Your task to perform on an android device: delete browsing data in the chrome app Image 0: 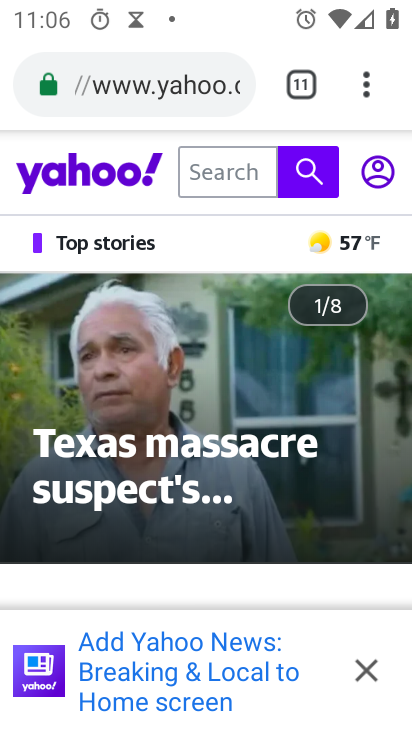
Step 0: press home button
Your task to perform on an android device: delete browsing data in the chrome app Image 1: 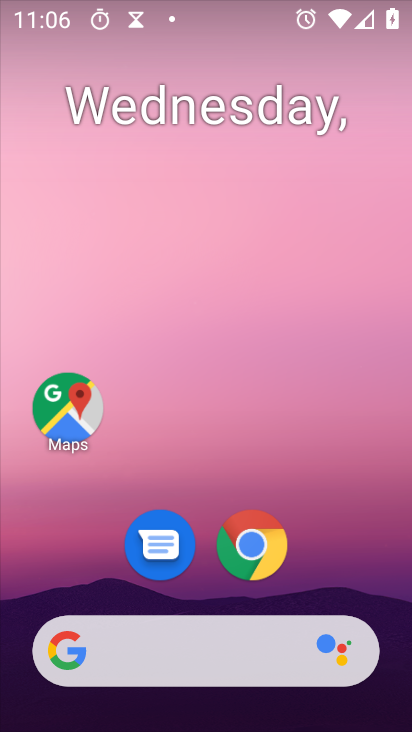
Step 1: click (243, 550)
Your task to perform on an android device: delete browsing data in the chrome app Image 2: 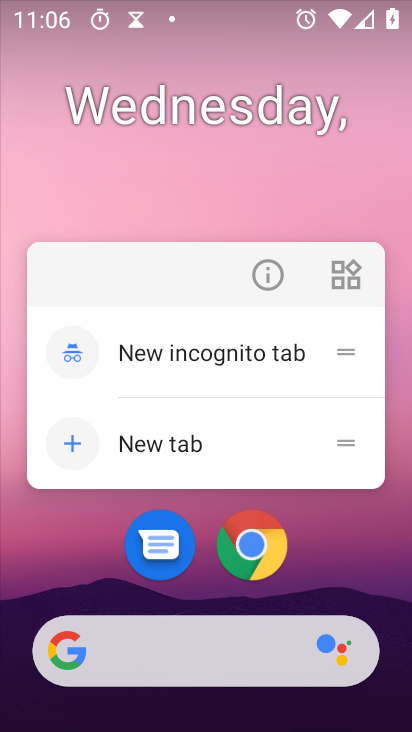
Step 2: click (245, 554)
Your task to perform on an android device: delete browsing data in the chrome app Image 3: 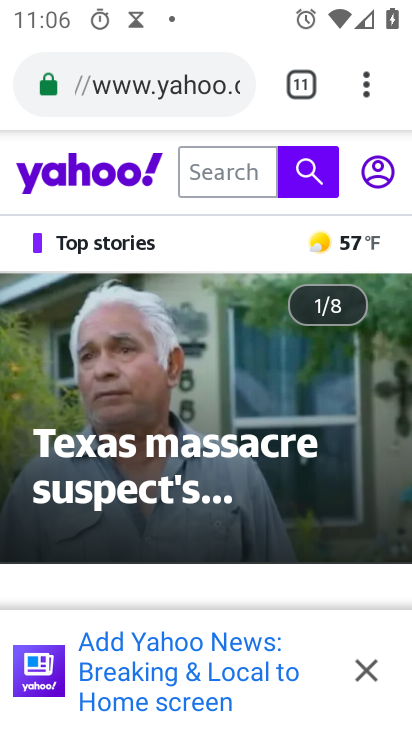
Step 3: drag from (362, 95) to (218, 603)
Your task to perform on an android device: delete browsing data in the chrome app Image 4: 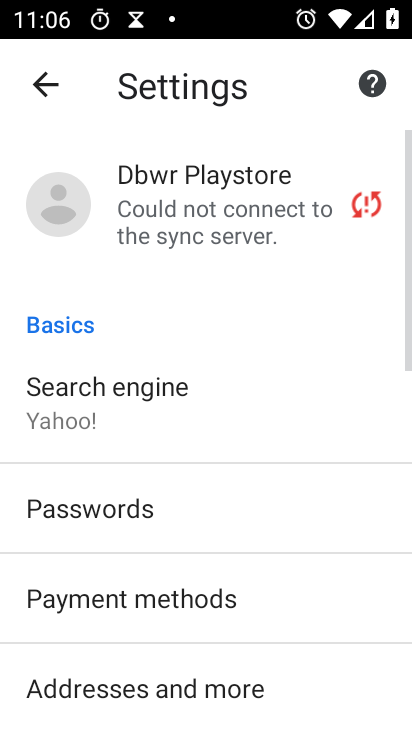
Step 4: drag from (228, 652) to (334, 116)
Your task to perform on an android device: delete browsing data in the chrome app Image 5: 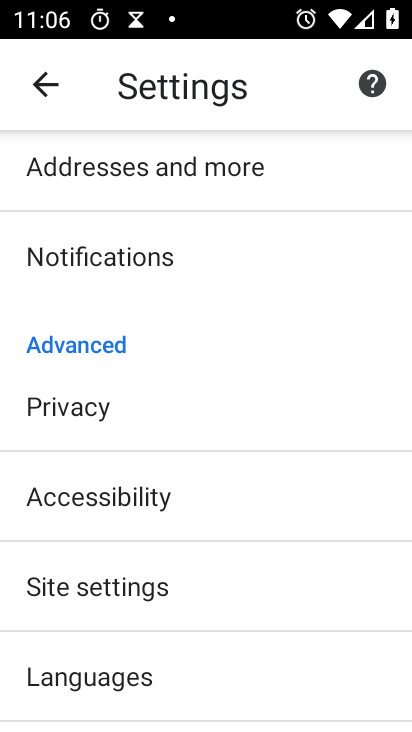
Step 5: click (76, 408)
Your task to perform on an android device: delete browsing data in the chrome app Image 6: 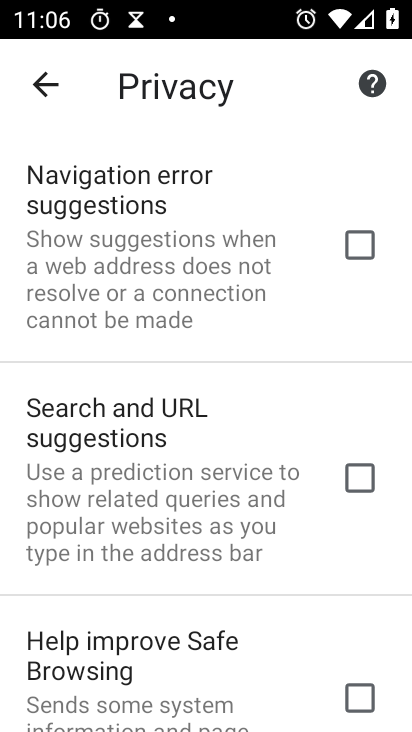
Step 6: drag from (186, 681) to (387, 124)
Your task to perform on an android device: delete browsing data in the chrome app Image 7: 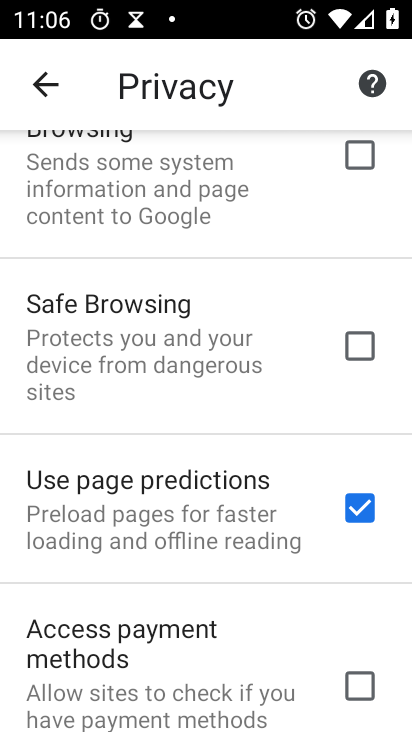
Step 7: drag from (167, 684) to (380, 107)
Your task to perform on an android device: delete browsing data in the chrome app Image 8: 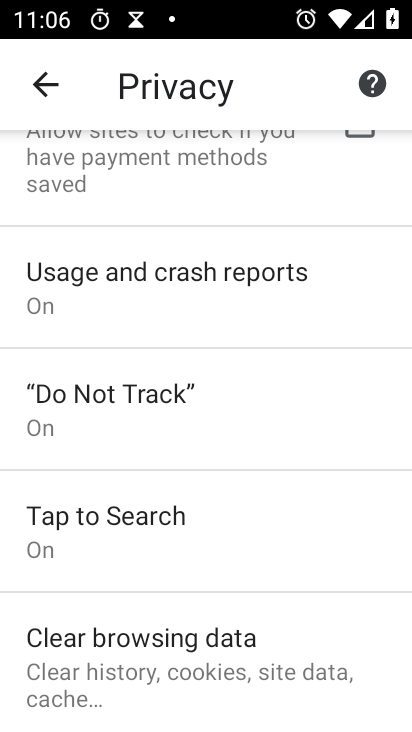
Step 8: click (217, 653)
Your task to perform on an android device: delete browsing data in the chrome app Image 9: 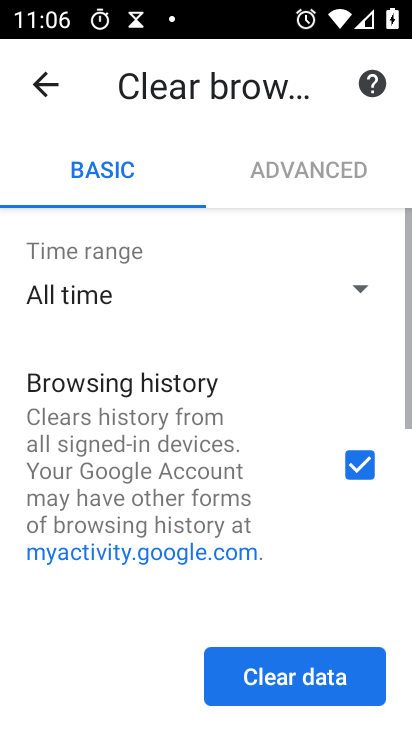
Step 9: drag from (223, 492) to (346, 205)
Your task to perform on an android device: delete browsing data in the chrome app Image 10: 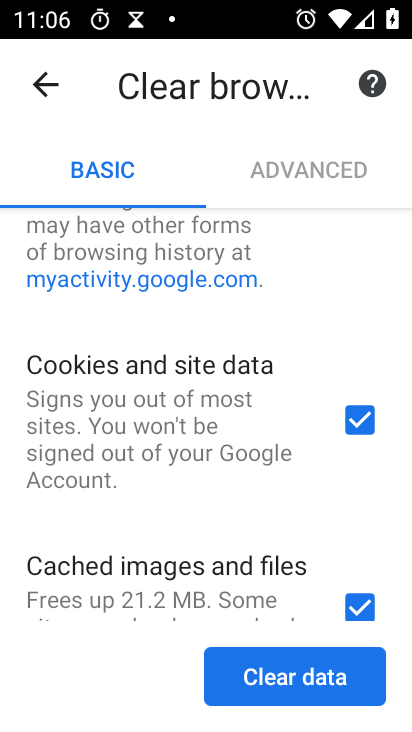
Step 10: drag from (347, 259) to (359, 220)
Your task to perform on an android device: delete browsing data in the chrome app Image 11: 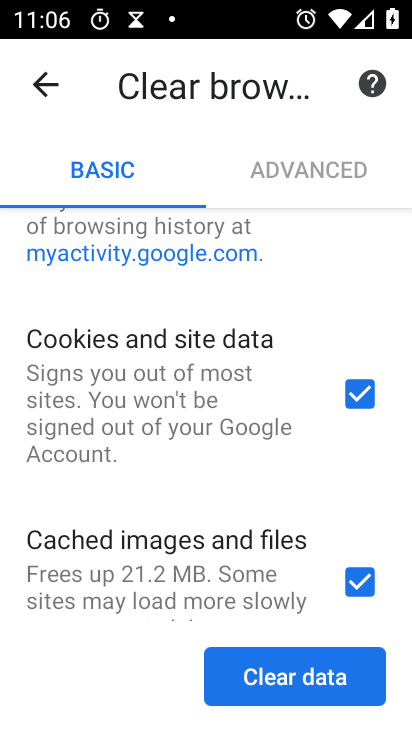
Step 11: click (278, 678)
Your task to perform on an android device: delete browsing data in the chrome app Image 12: 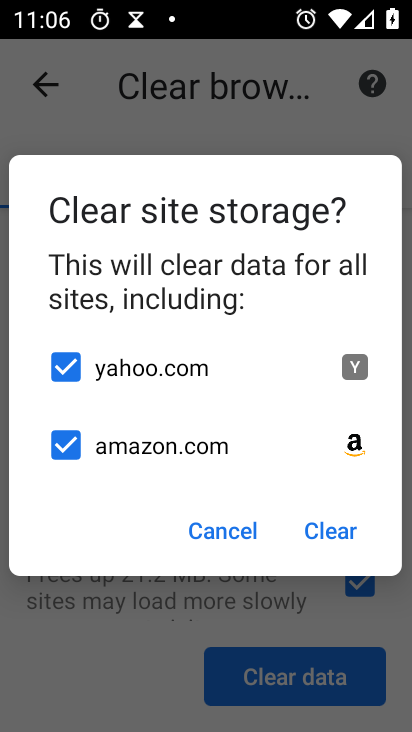
Step 12: click (320, 533)
Your task to perform on an android device: delete browsing data in the chrome app Image 13: 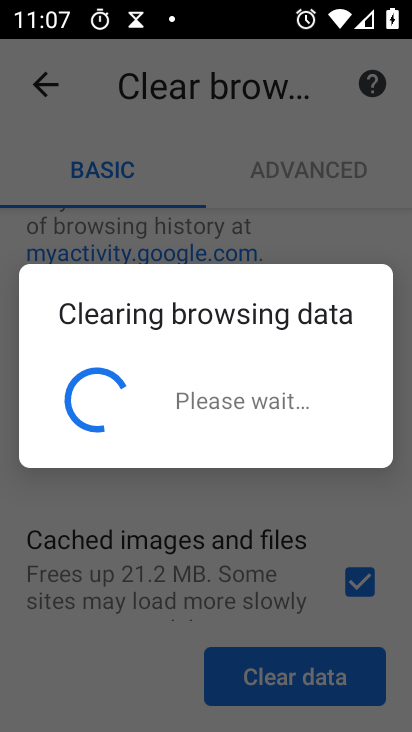
Step 13: press back button
Your task to perform on an android device: delete browsing data in the chrome app Image 14: 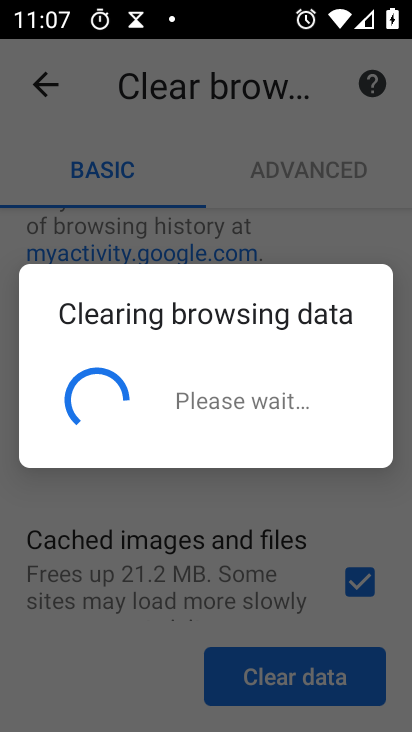
Step 14: press back button
Your task to perform on an android device: delete browsing data in the chrome app Image 15: 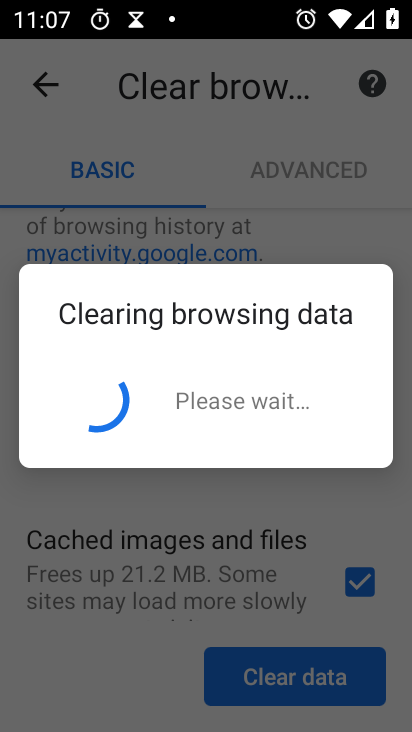
Step 15: click (266, 403)
Your task to perform on an android device: delete browsing data in the chrome app Image 16: 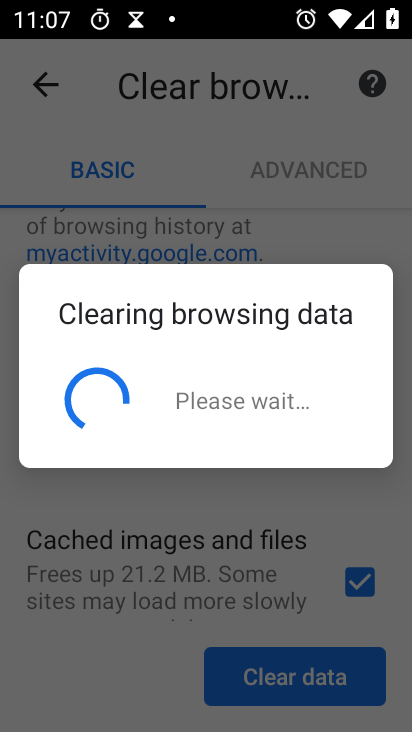
Step 16: task complete